Your task to perform on an android device: install app "Pandora - Music & Podcasts" Image 0: 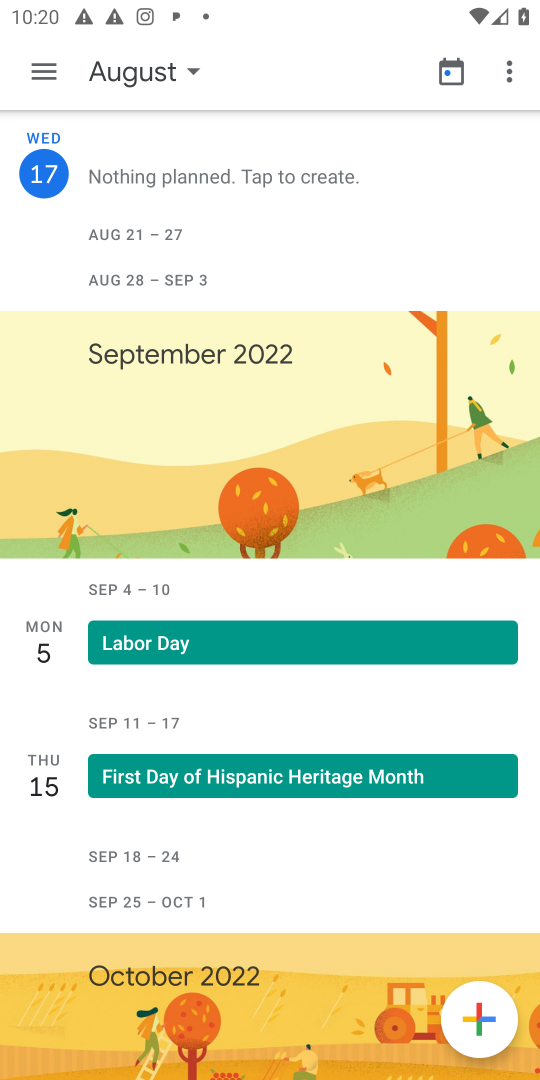
Step 0: press home button
Your task to perform on an android device: install app "Pandora - Music & Podcasts" Image 1: 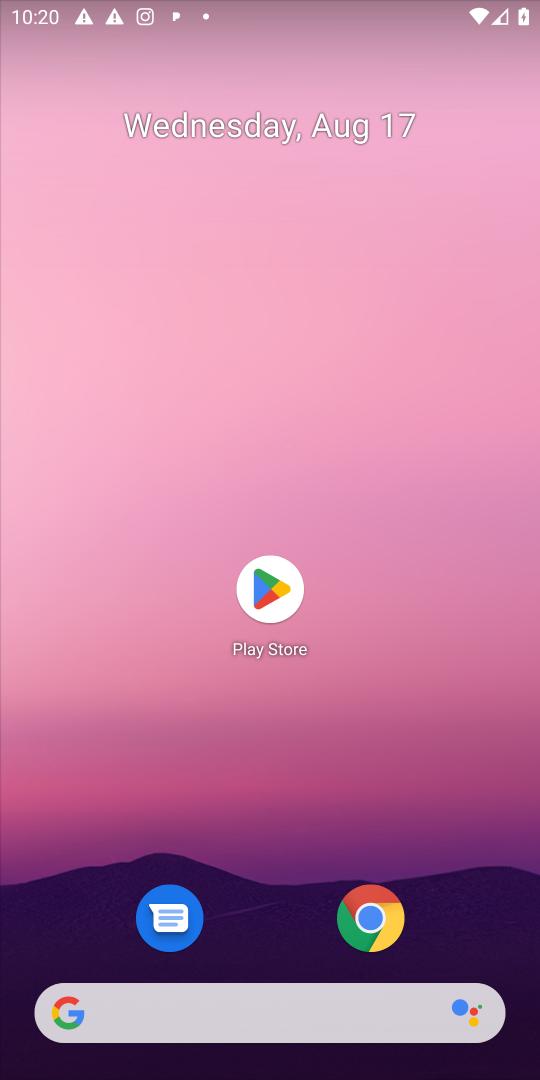
Step 1: click (279, 587)
Your task to perform on an android device: install app "Pandora - Music & Podcasts" Image 2: 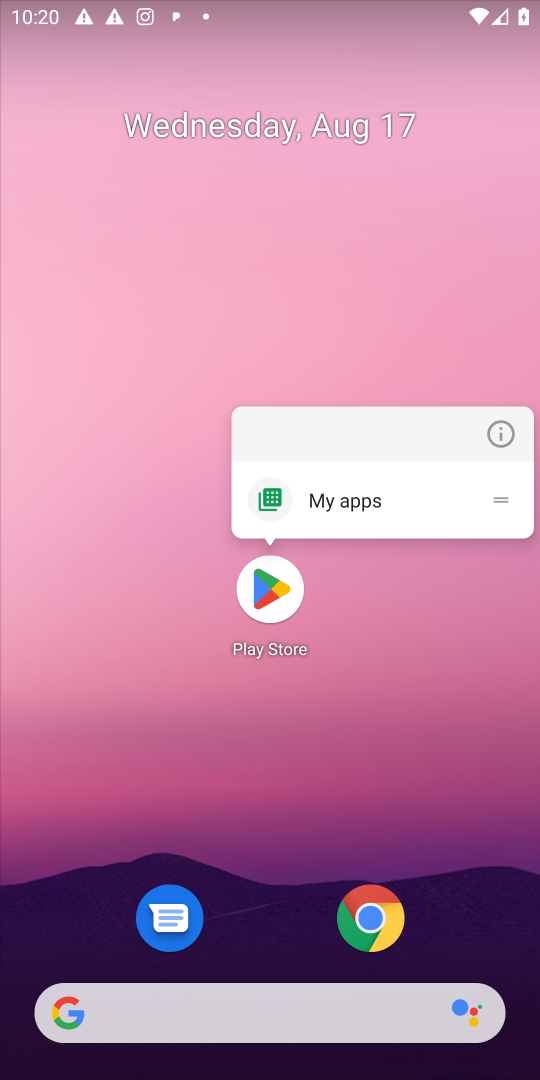
Step 2: click (279, 586)
Your task to perform on an android device: install app "Pandora - Music & Podcasts" Image 3: 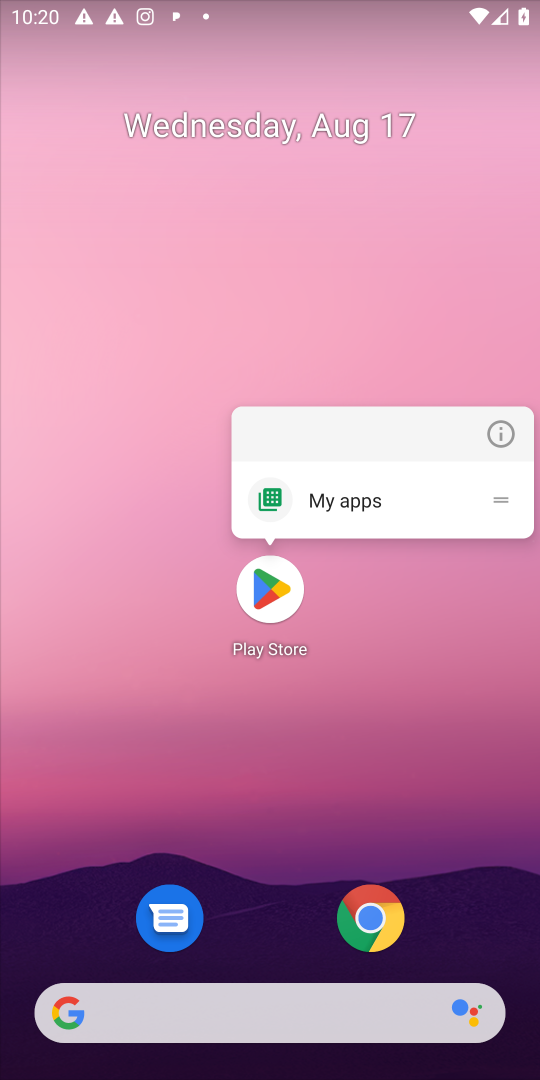
Step 3: click (279, 587)
Your task to perform on an android device: install app "Pandora - Music & Podcasts" Image 4: 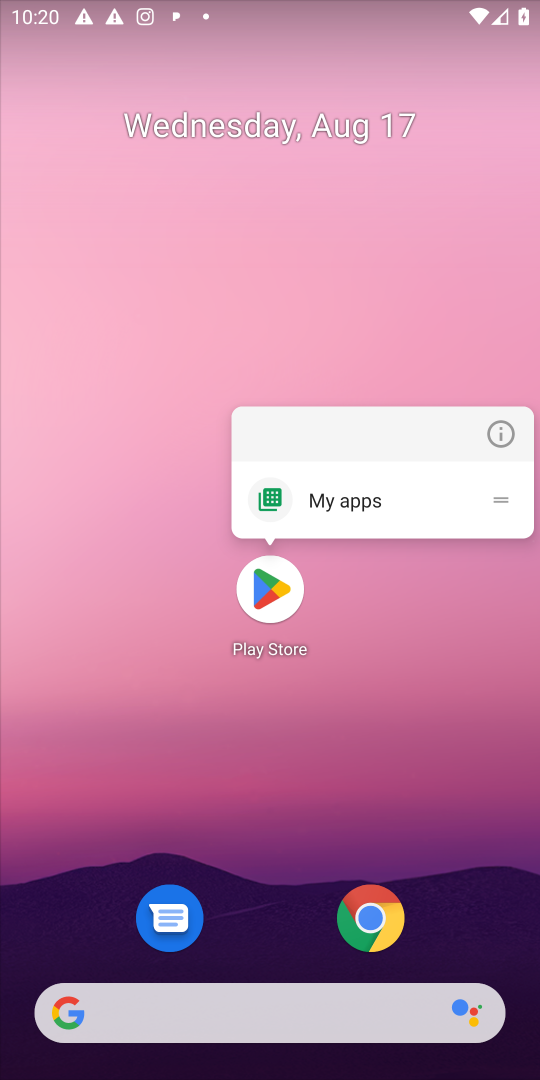
Step 4: click (265, 594)
Your task to perform on an android device: install app "Pandora - Music & Podcasts" Image 5: 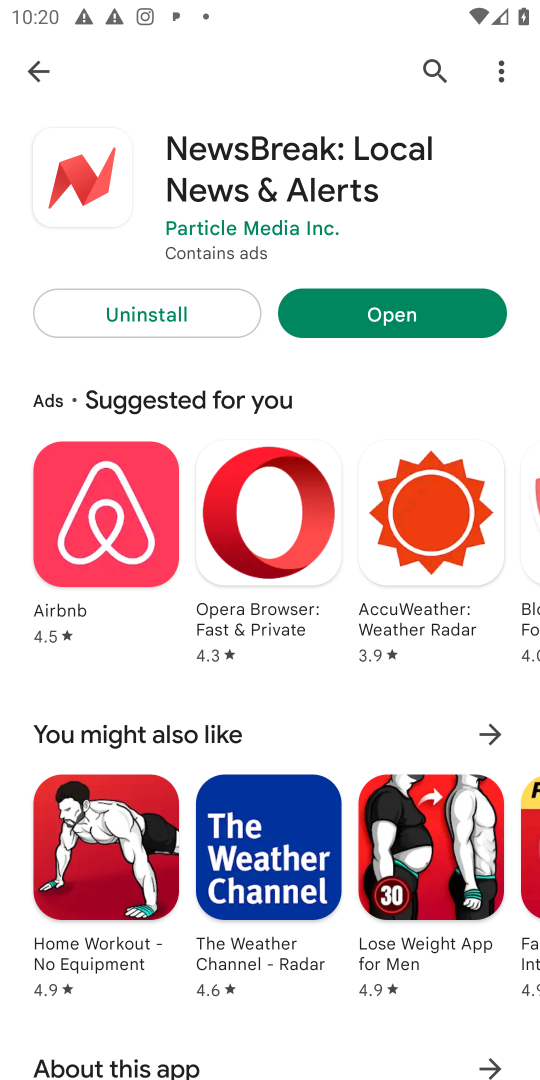
Step 5: click (435, 64)
Your task to perform on an android device: install app "Pandora - Music & Podcasts" Image 6: 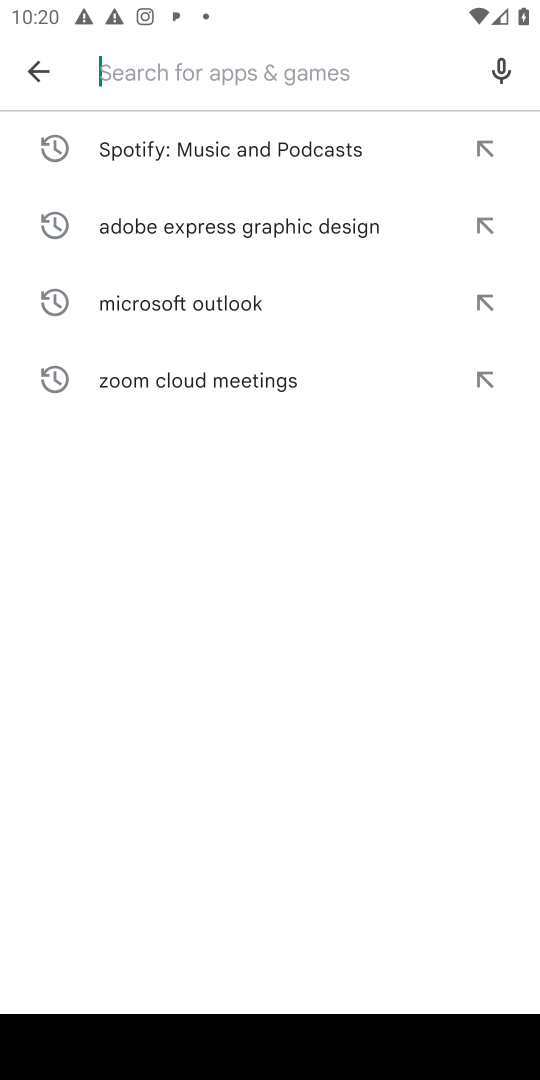
Step 6: type "Pandora - Music & Podcasts"
Your task to perform on an android device: install app "Pandora - Music & Podcasts" Image 7: 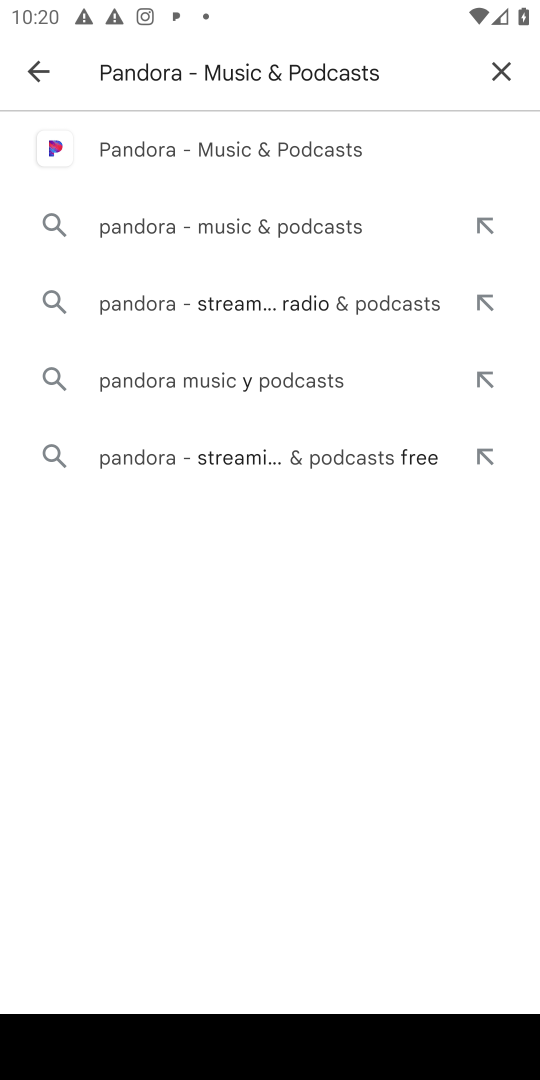
Step 7: click (243, 148)
Your task to perform on an android device: install app "Pandora - Music & Podcasts" Image 8: 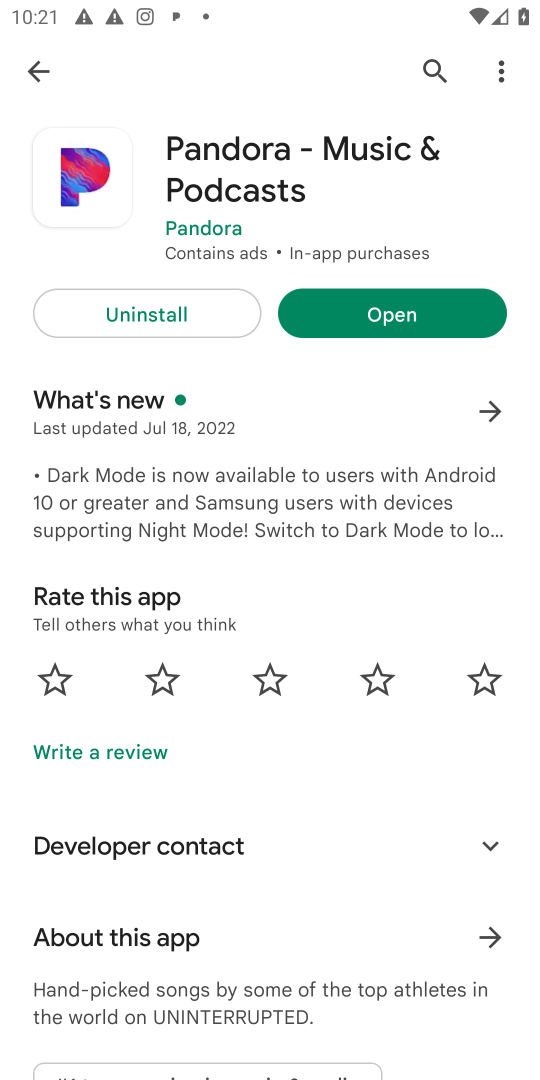
Step 8: task complete